Your task to perform on an android device: toggle wifi Image 0: 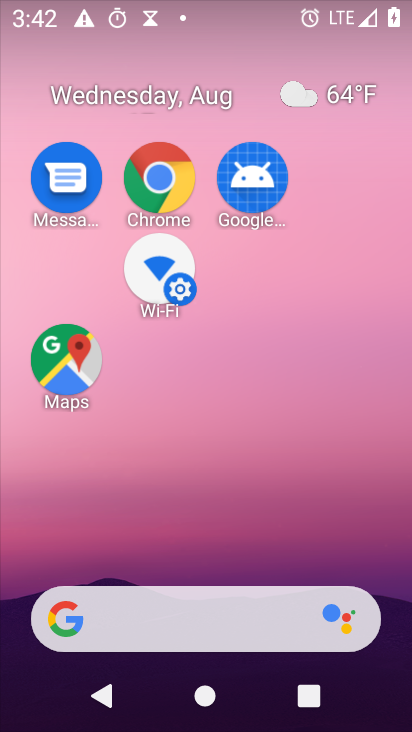
Step 0: press home button
Your task to perform on an android device: toggle wifi Image 1: 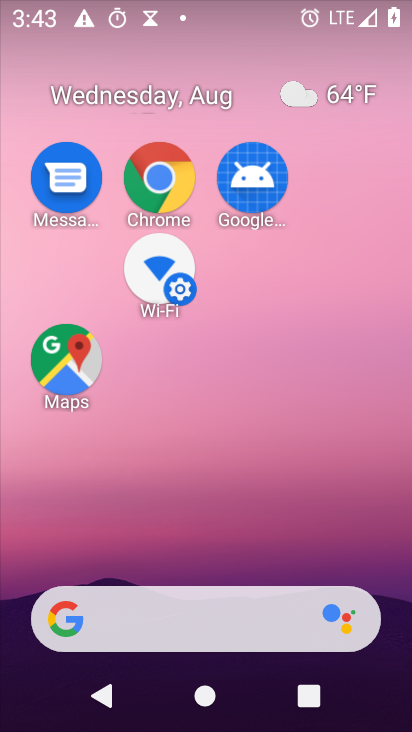
Step 1: drag from (172, 197) to (115, 592)
Your task to perform on an android device: toggle wifi Image 2: 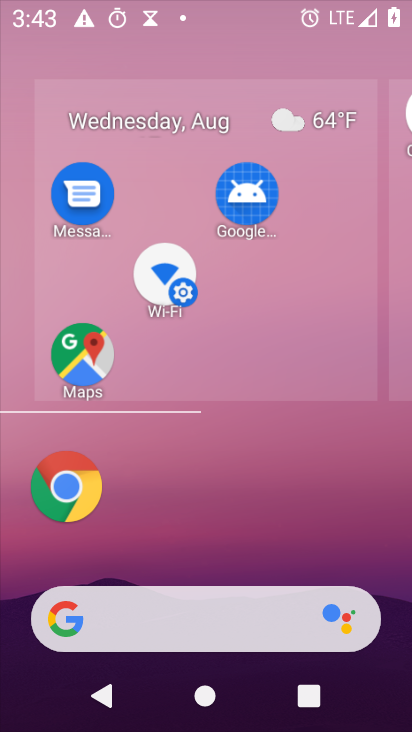
Step 2: drag from (217, 36) to (229, 661)
Your task to perform on an android device: toggle wifi Image 3: 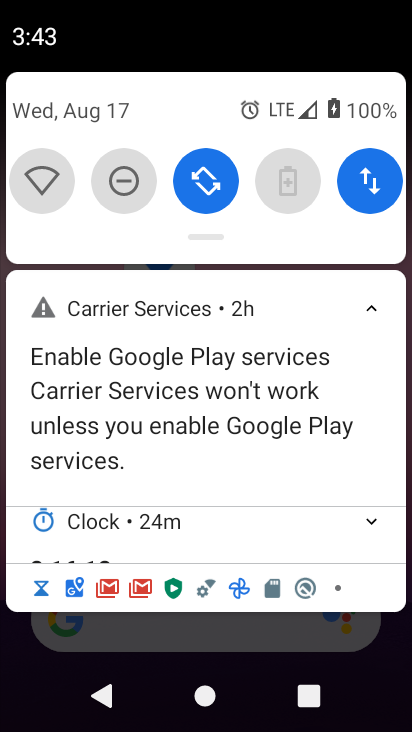
Step 3: click (41, 176)
Your task to perform on an android device: toggle wifi Image 4: 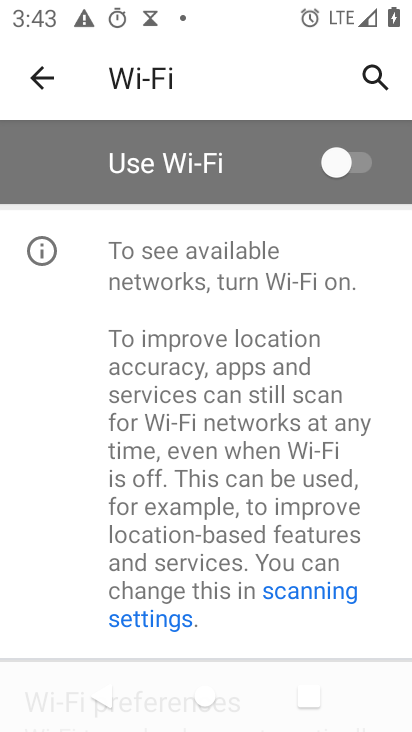
Step 4: click (339, 168)
Your task to perform on an android device: toggle wifi Image 5: 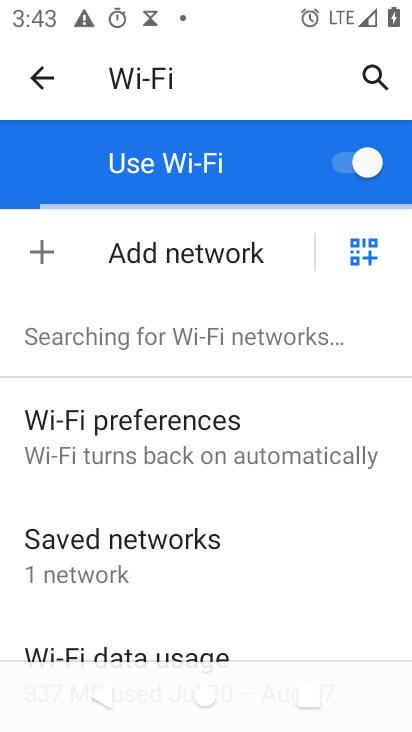
Step 5: task complete